Your task to perform on an android device: find which apps use the phone's location Image 0: 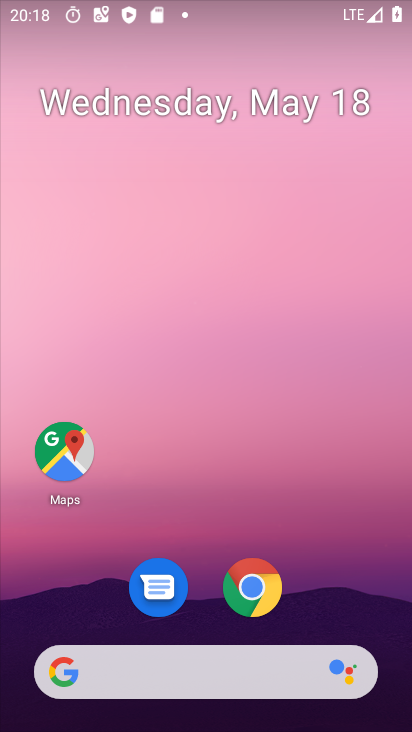
Step 0: drag from (207, 622) to (205, 152)
Your task to perform on an android device: find which apps use the phone's location Image 1: 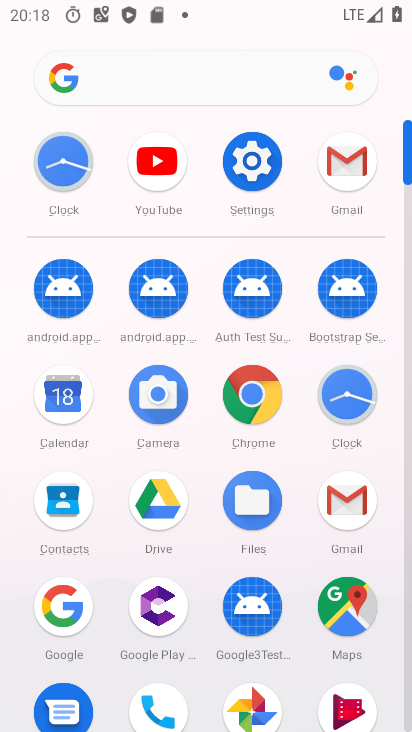
Step 1: click (252, 146)
Your task to perform on an android device: find which apps use the phone's location Image 2: 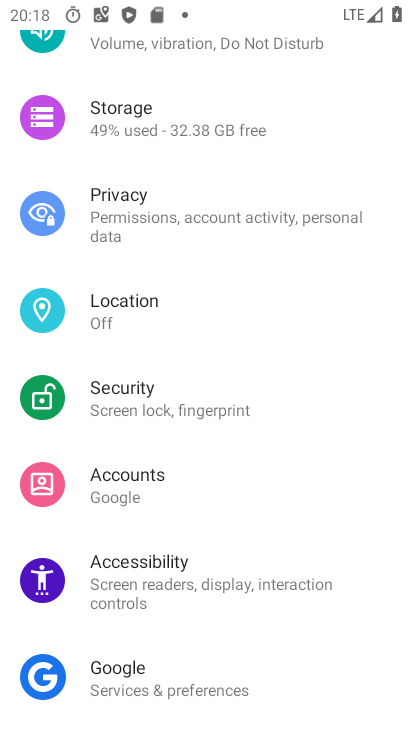
Step 2: click (90, 323)
Your task to perform on an android device: find which apps use the phone's location Image 3: 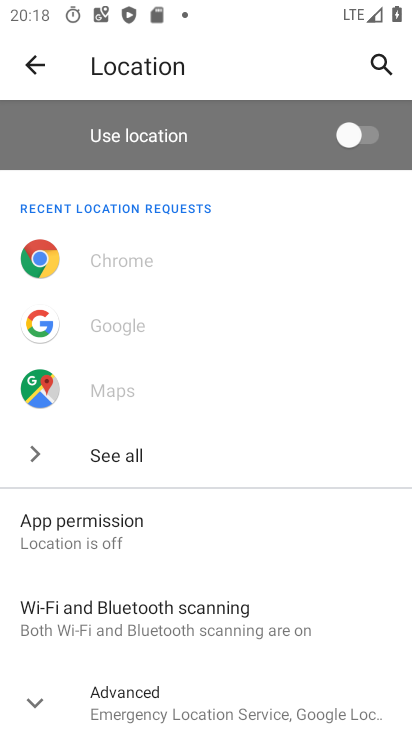
Step 3: click (116, 468)
Your task to perform on an android device: find which apps use the phone's location Image 4: 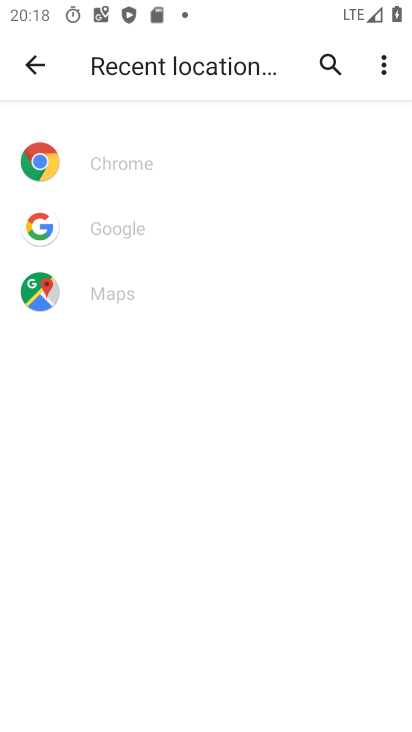
Step 4: task complete